Your task to perform on an android device: check data usage Image 0: 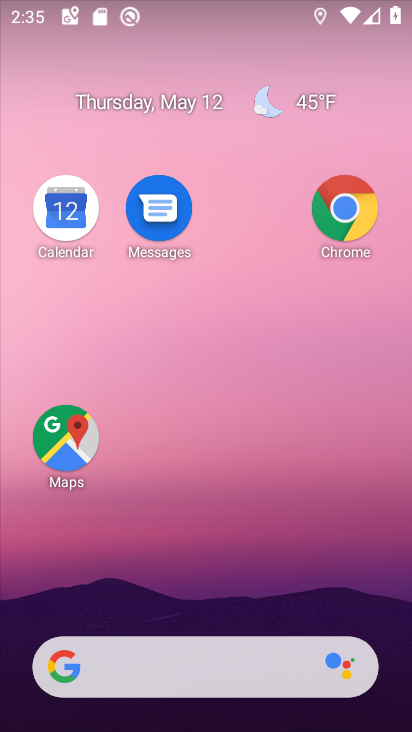
Step 0: click (359, 161)
Your task to perform on an android device: check data usage Image 1: 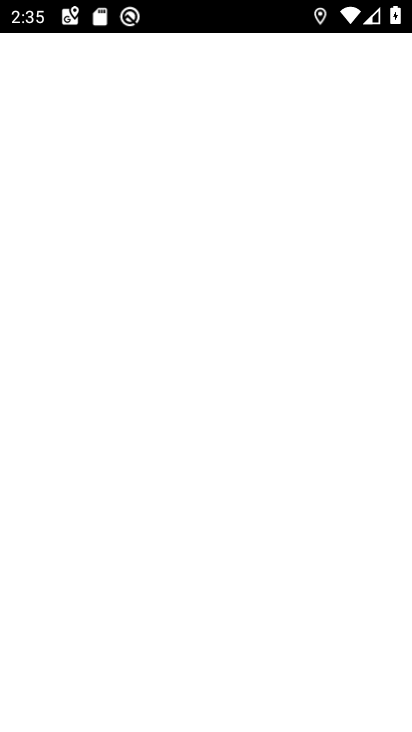
Step 1: drag from (245, 554) to (371, 83)
Your task to perform on an android device: check data usage Image 2: 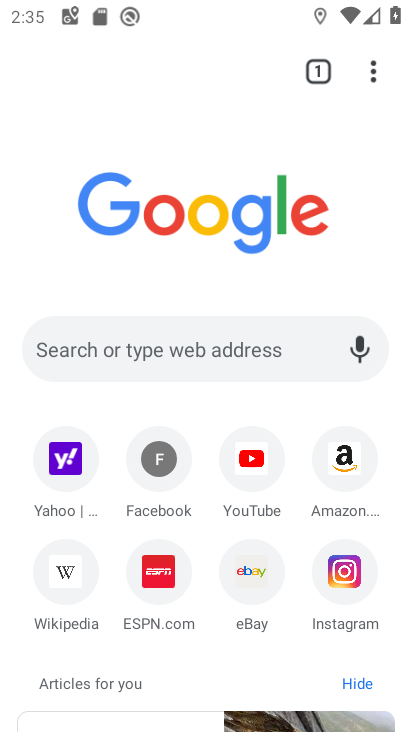
Step 2: drag from (197, 647) to (213, 158)
Your task to perform on an android device: check data usage Image 3: 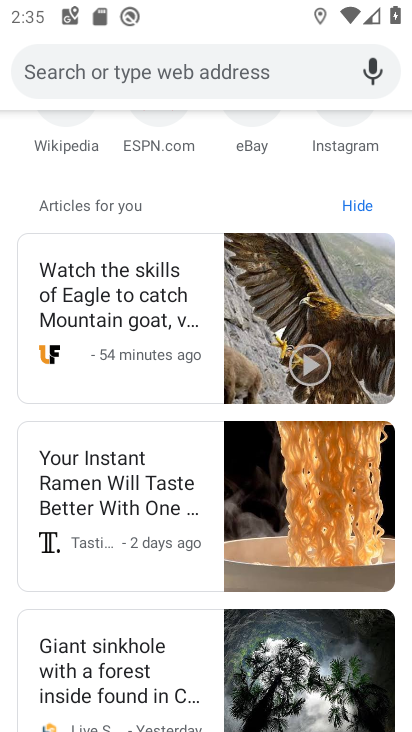
Step 3: drag from (266, 146) to (335, 720)
Your task to perform on an android device: check data usage Image 4: 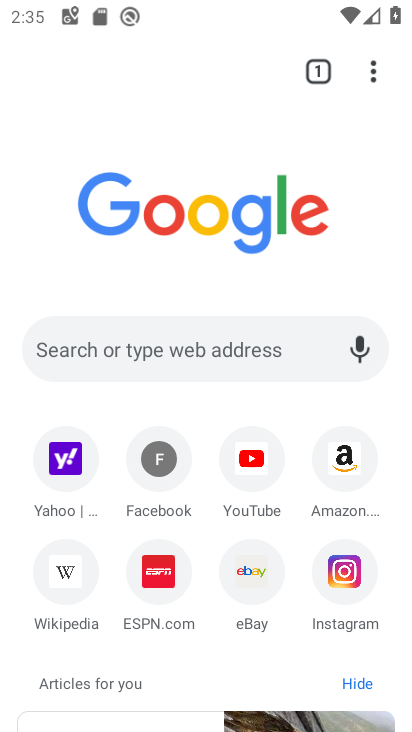
Step 4: press home button
Your task to perform on an android device: check data usage Image 5: 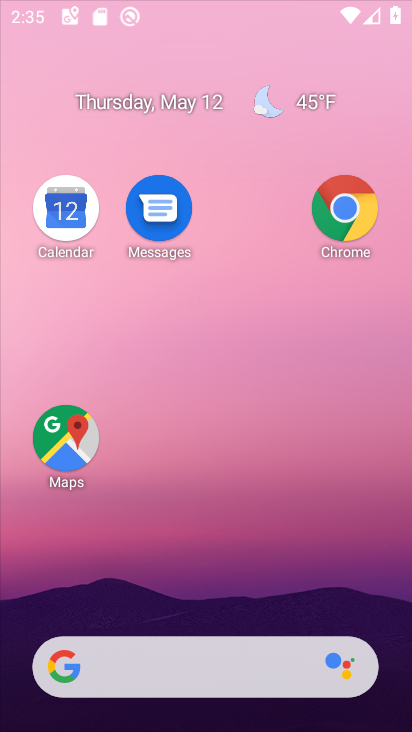
Step 5: drag from (171, 593) to (271, 48)
Your task to perform on an android device: check data usage Image 6: 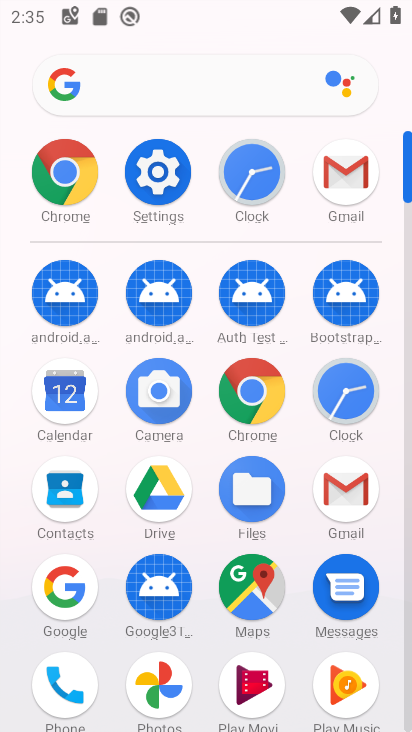
Step 6: click (139, 162)
Your task to perform on an android device: check data usage Image 7: 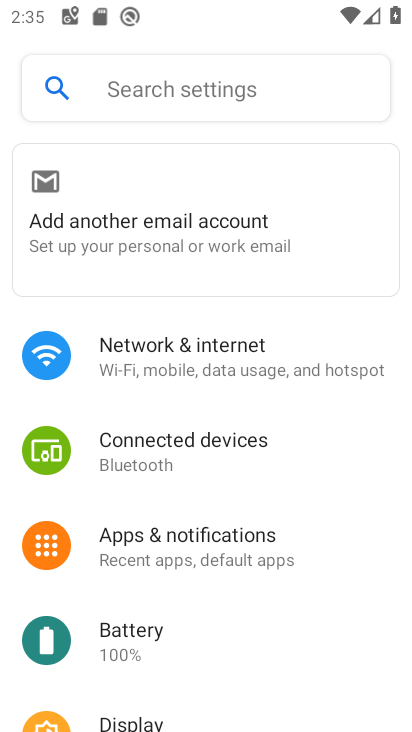
Step 7: click (199, 363)
Your task to perform on an android device: check data usage Image 8: 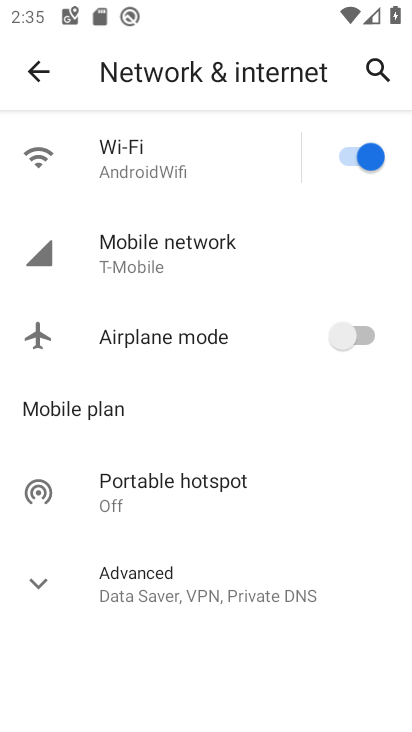
Step 8: click (219, 259)
Your task to perform on an android device: check data usage Image 9: 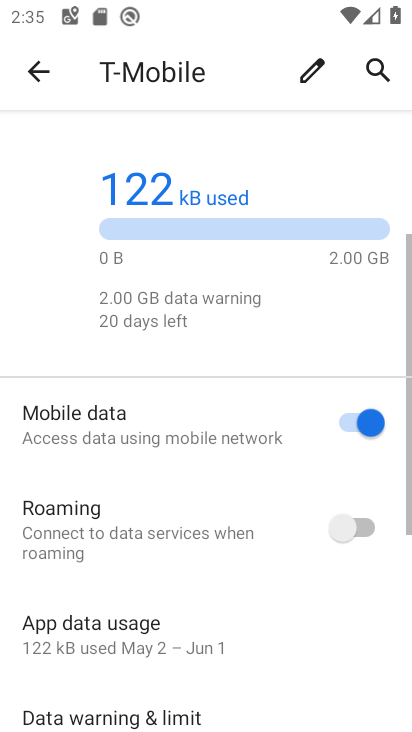
Step 9: task complete